Your task to perform on an android device: turn off notifications settings in the gmail app Image 0: 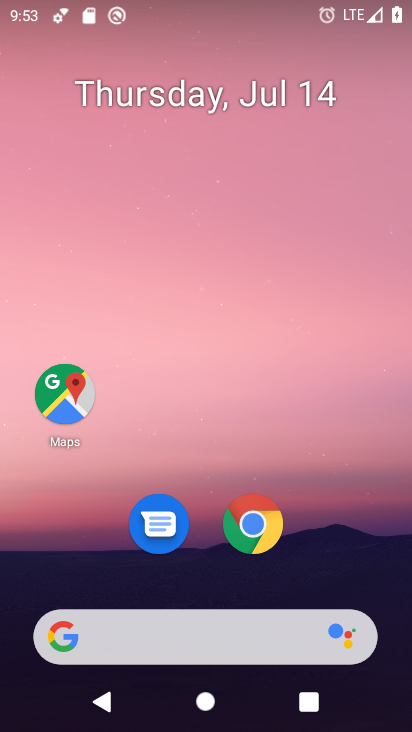
Step 0: drag from (320, 522) to (309, 56)
Your task to perform on an android device: turn off notifications settings in the gmail app Image 1: 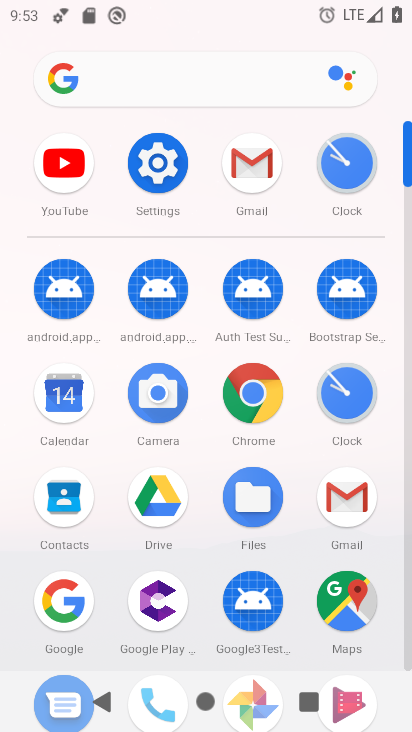
Step 1: click (246, 169)
Your task to perform on an android device: turn off notifications settings in the gmail app Image 2: 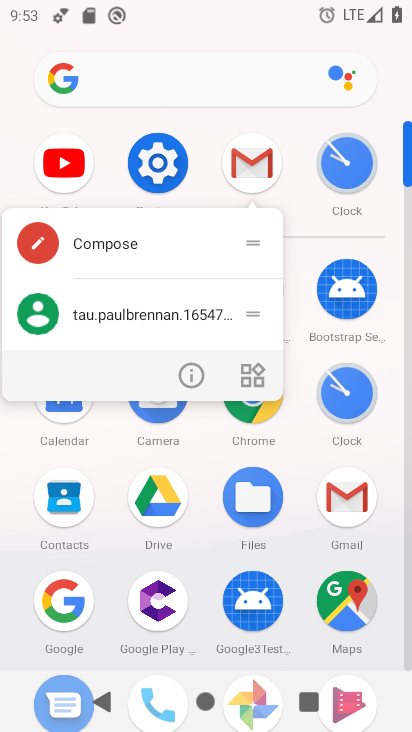
Step 2: click (249, 166)
Your task to perform on an android device: turn off notifications settings in the gmail app Image 3: 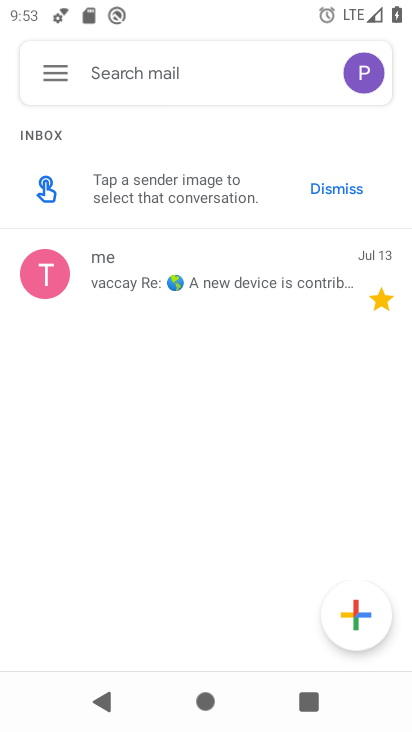
Step 3: click (58, 75)
Your task to perform on an android device: turn off notifications settings in the gmail app Image 4: 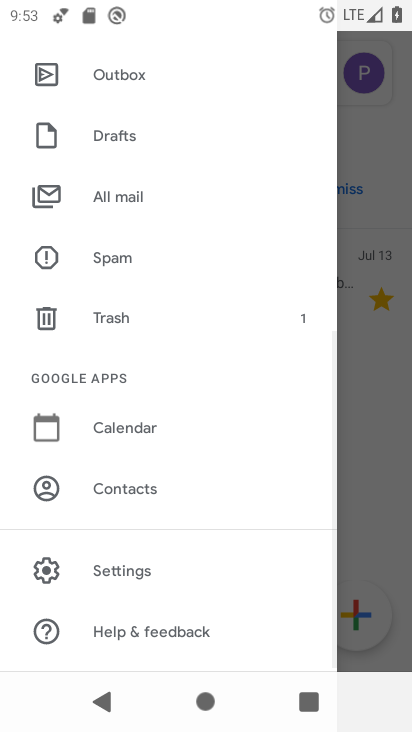
Step 4: click (139, 579)
Your task to perform on an android device: turn off notifications settings in the gmail app Image 5: 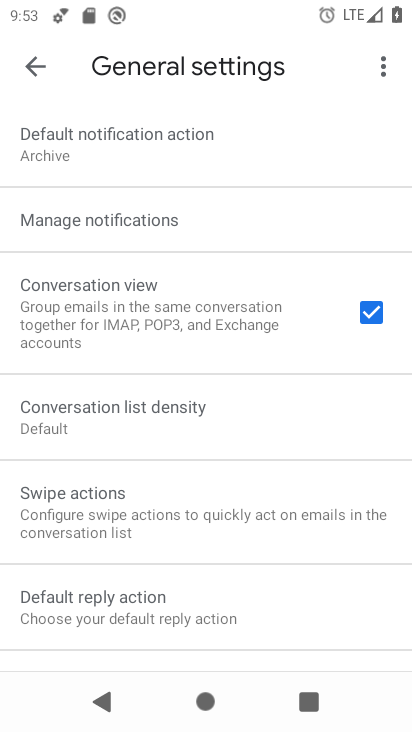
Step 5: click (265, 217)
Your task to perform on an android device: turn off notifications settings in the gmail app Image 6: 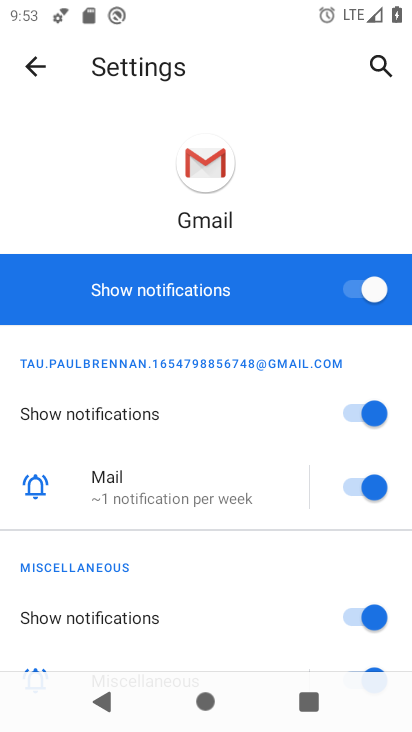
Step 6: click (358, 284)
Your task to perform on an android device: turn off notifications settings in the gmail app Image 7: 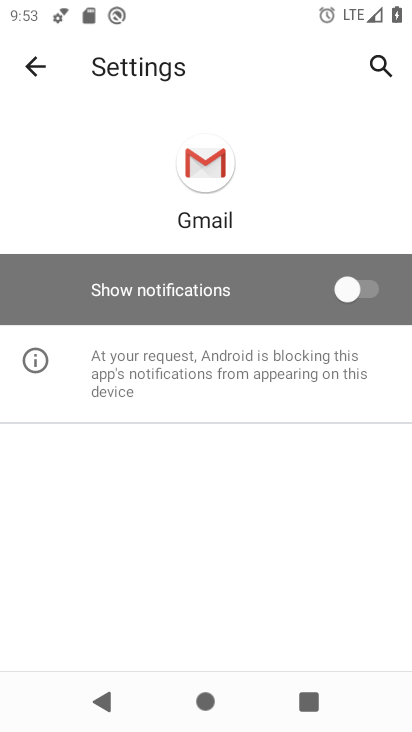
Step 7: task complete